Your task to perform on an android device: Do I have any events today? Image 0: 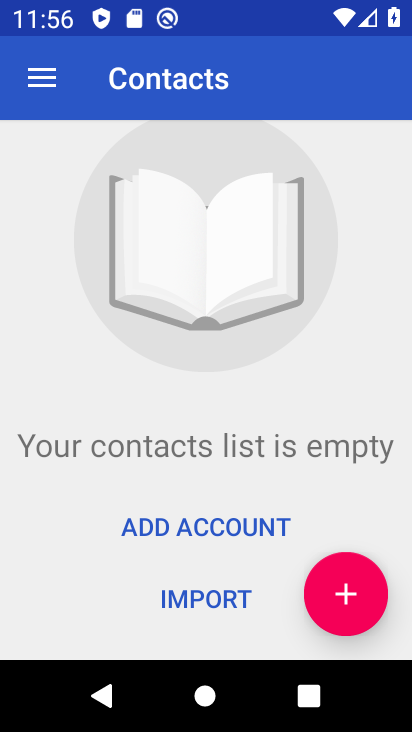
Step 0: press home button
Your task to perform on an android device: Do I have any events today? Image 1: 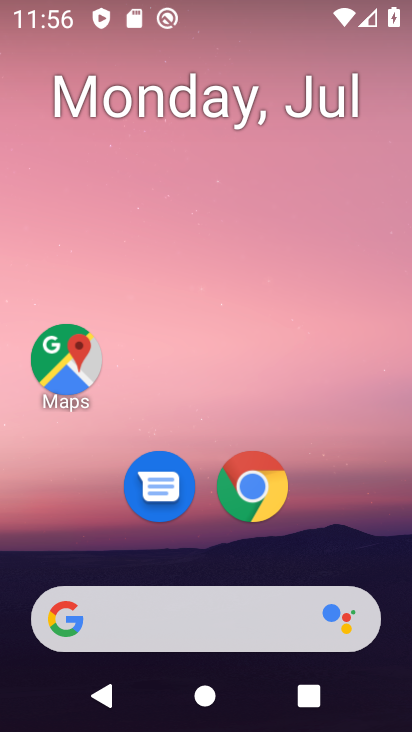
Step 1: drag from (368, 551) to (377, 86)
Your task to perform on an android device: Do I have any events today? Image 2: 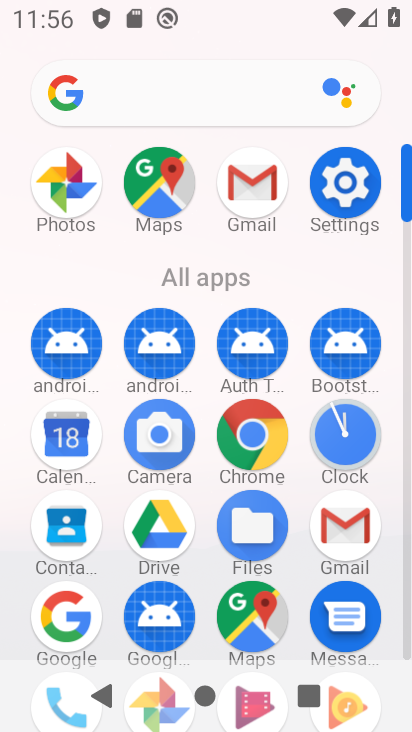
Step 2: click (49, 432)
Your task to perform on an android device: Do I have any events today? Image 3: 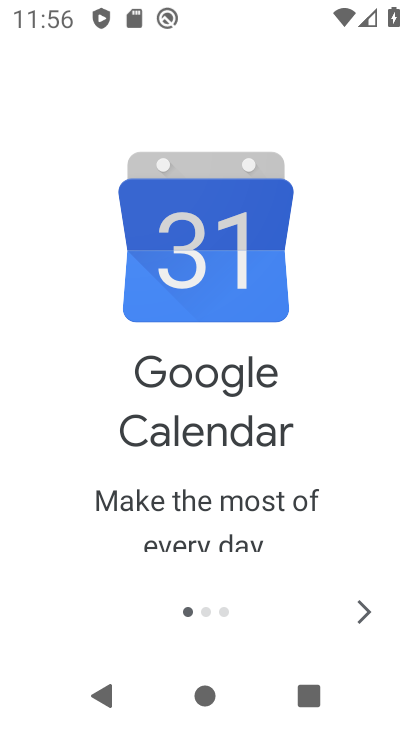
Step 3: click (367, 616)
Your task to perform on an android device: Do I have any events today? Image 4: 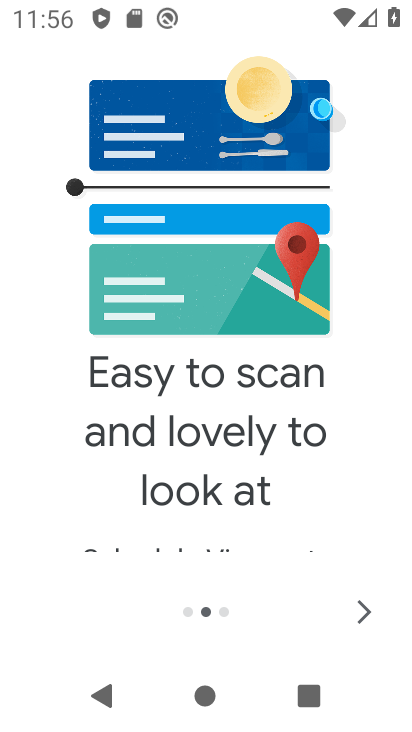
Step 4: click (367, 616)
Your task to perform on an android device: Do I have any events today? Image 5: 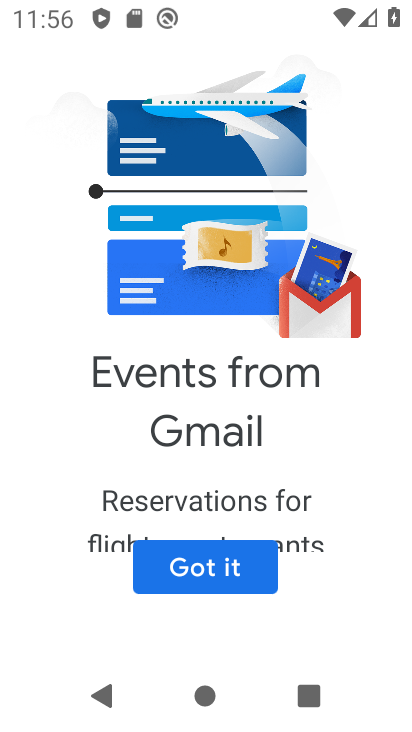
Step 5: click (221, 565)
Your task to perform on an android device: Do I have any events today? Image 6: 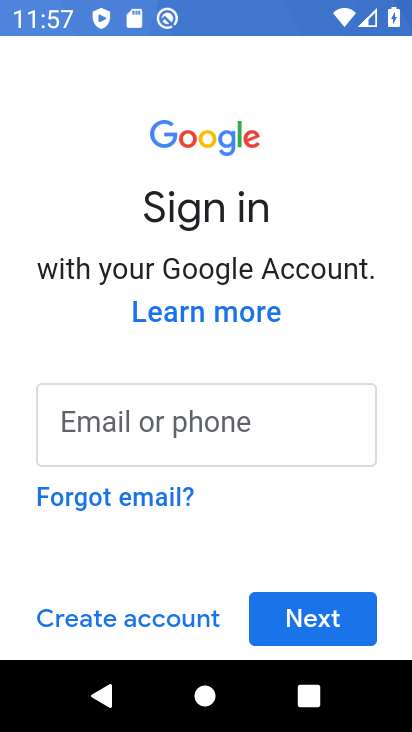
Step 6: task complete